Your task to perform on an android device: Show me popular games on the Play Store Image 0: 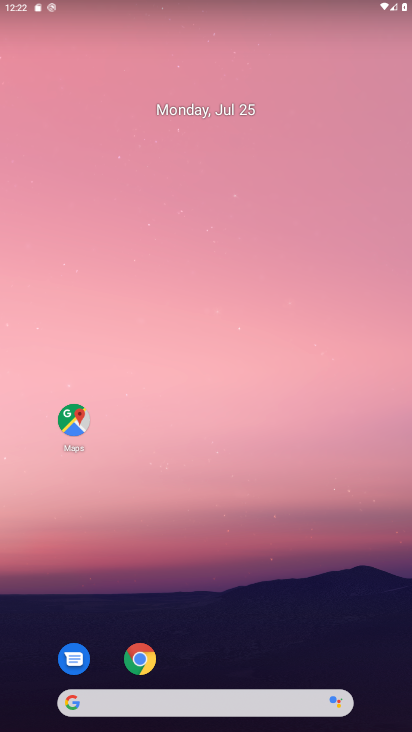
Step 0: drag from (213, 675) to (205, 20)
Your task to perform on an android device: Show me popular games on the Play Store Image 1: 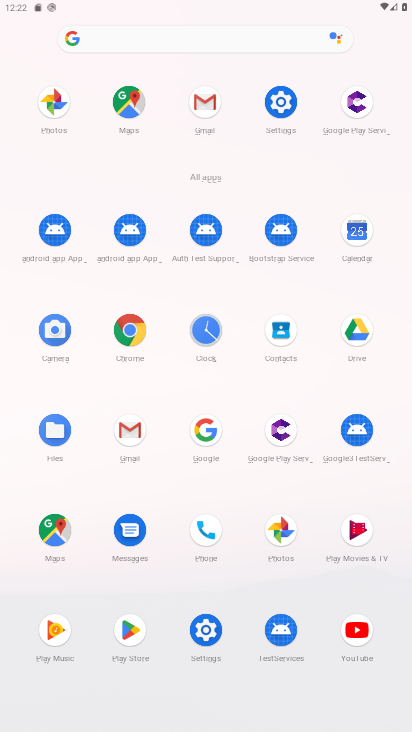
Step 1: click (125, 622)
Your task to perform on an android device: Show me popular games on the Play Store Image 2: 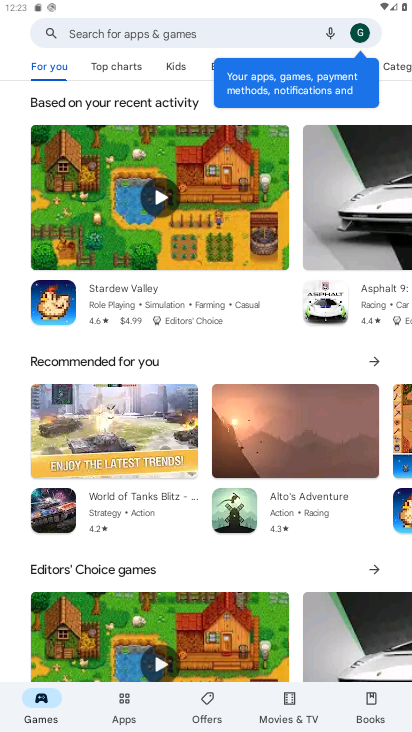
Step 2: task complete